Your task to perform on an android device: Open privacy settings Image 0: 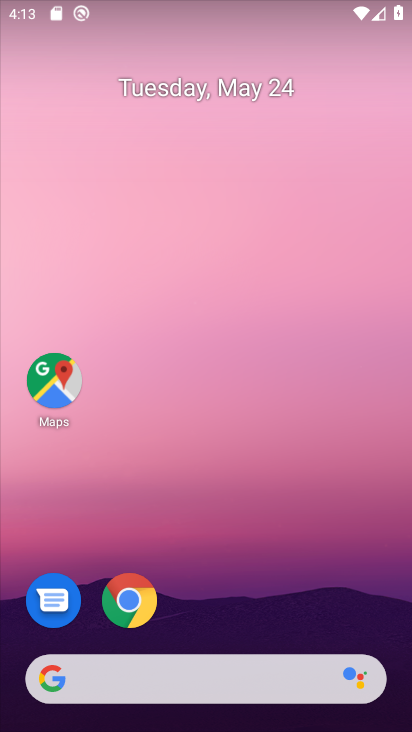
Step 0: drag from (295, 668) to (268, 54)
Your task to perform on an android device: Open privacy settings Image 1: 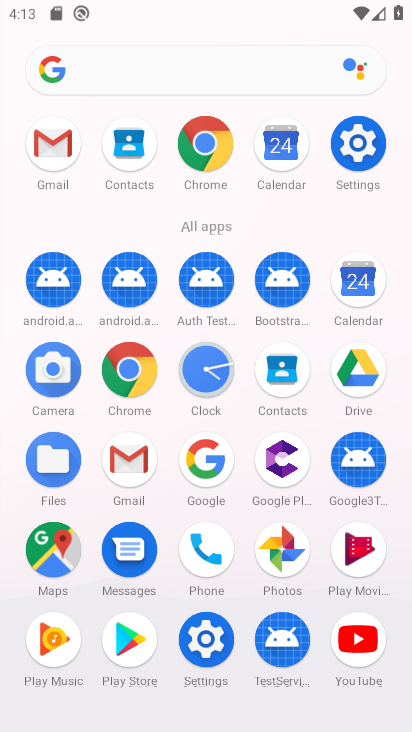
Step 1: click (368, 144)
Your task to perform on an android device: Open privacy settings Image 2: 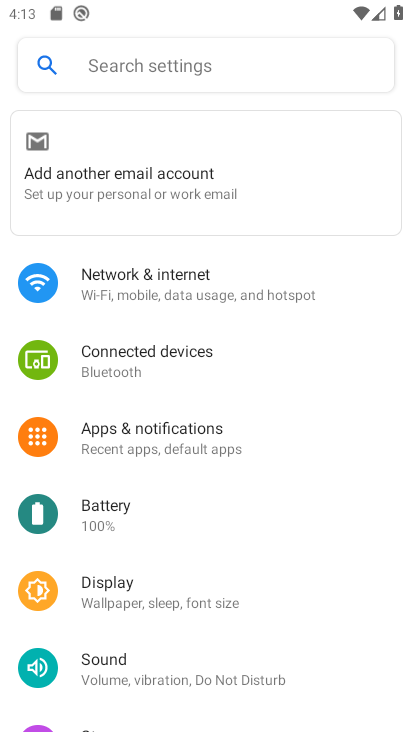
Step 2: drag from (136, 689) to (135, 236)
Your task to perform on an android device: Open privacy settings Image 3: 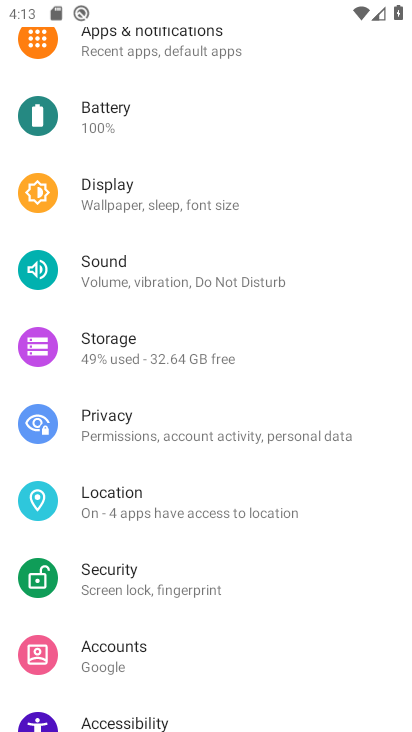
Step 3: click (152, 425)
Your task to perform on an android device: Open privacy settings Image 4: 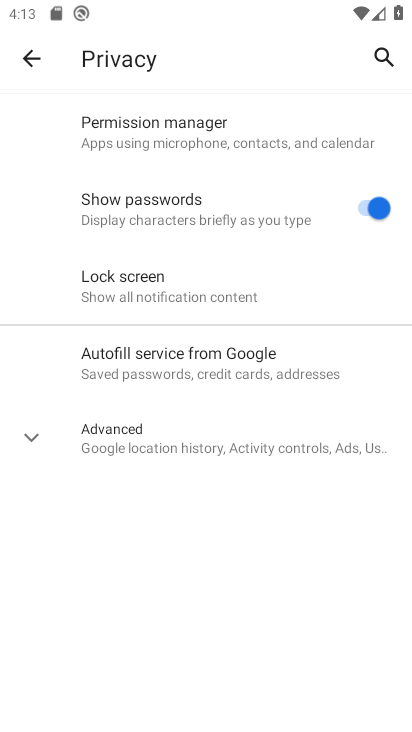
Step 4: task complete